Your task to perform on an android device: open the mobile data screen to see how much data has been used Image 0: 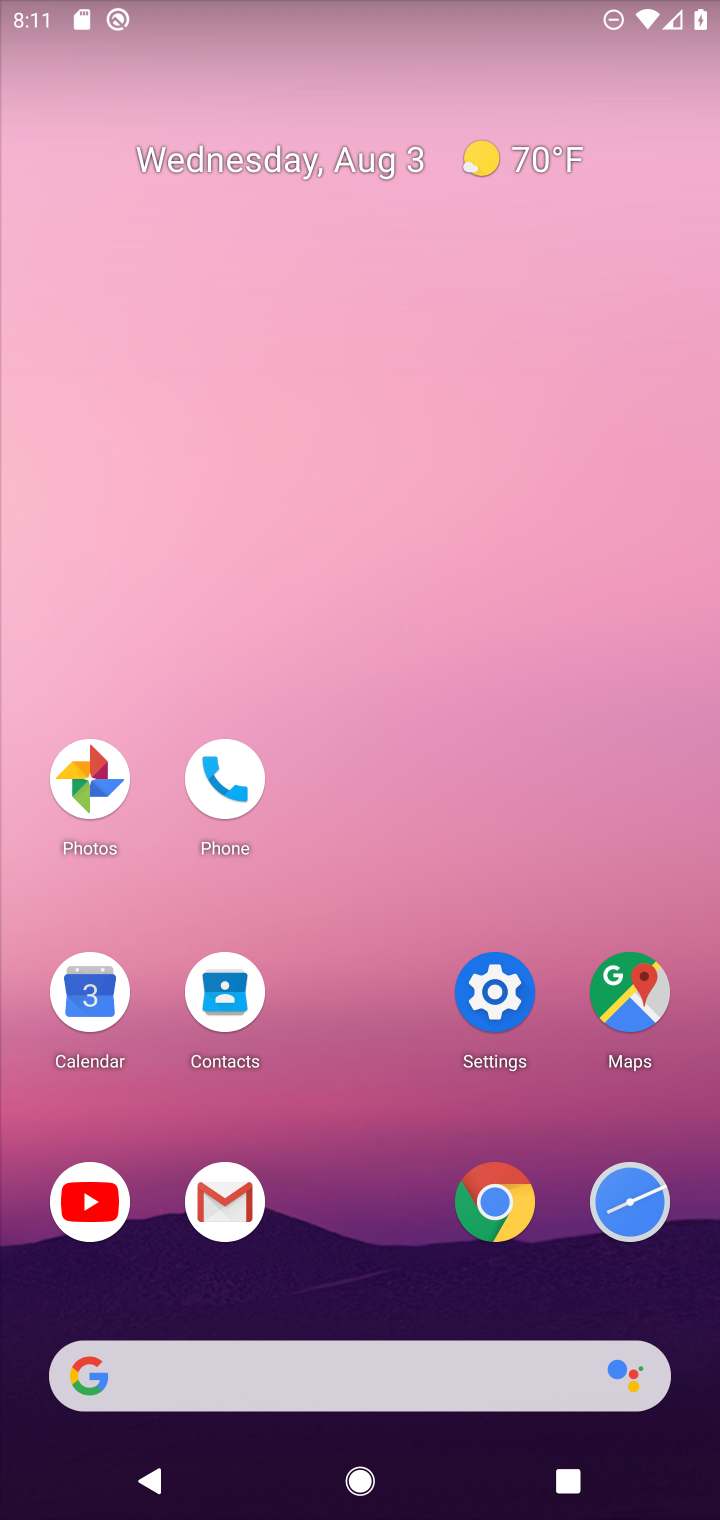
Step 0: press home button
Your task to perform on an android device: open the mobile data screen to see how much data has been used Image 1: 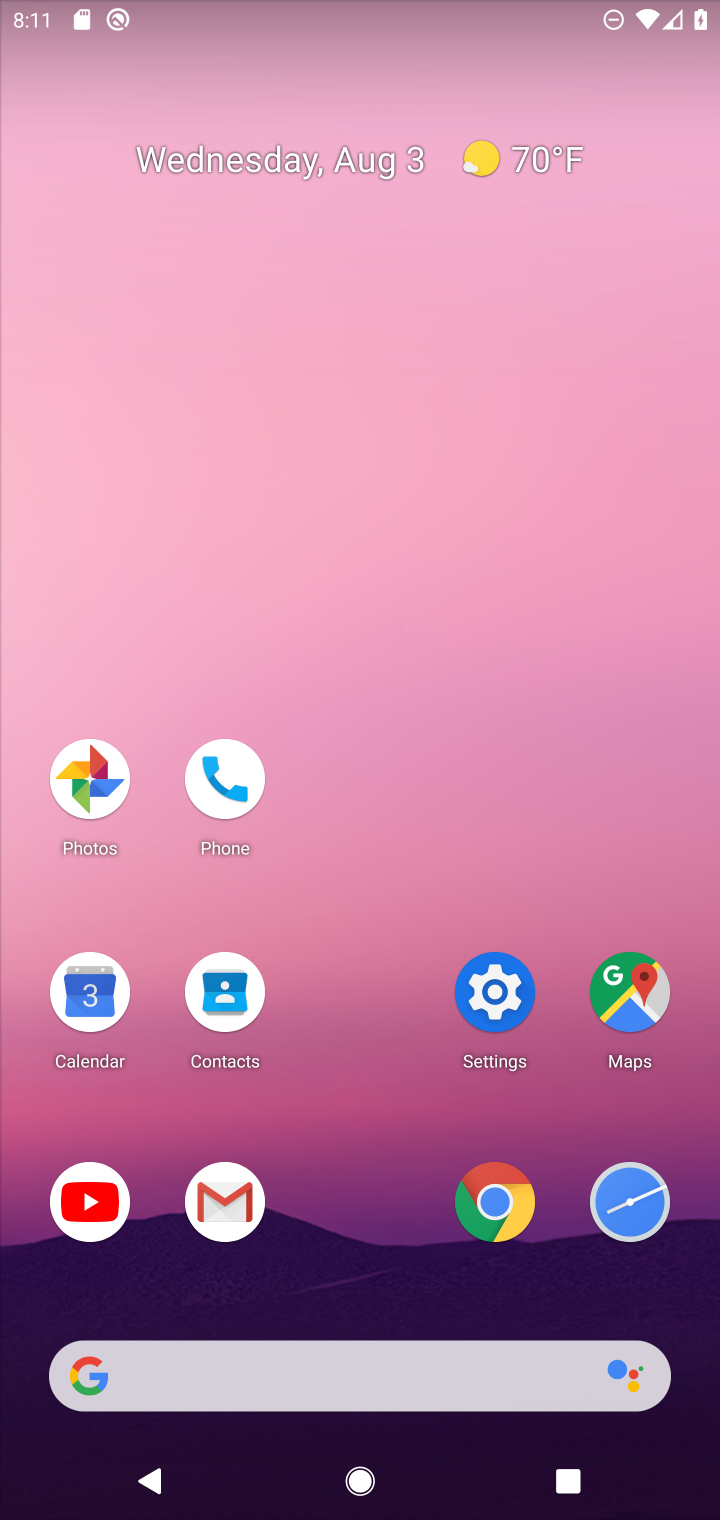
Step 1: click (502, 990)
Your task to perform on an android device: open the mobile data screen to see how much data has been used Image 2: 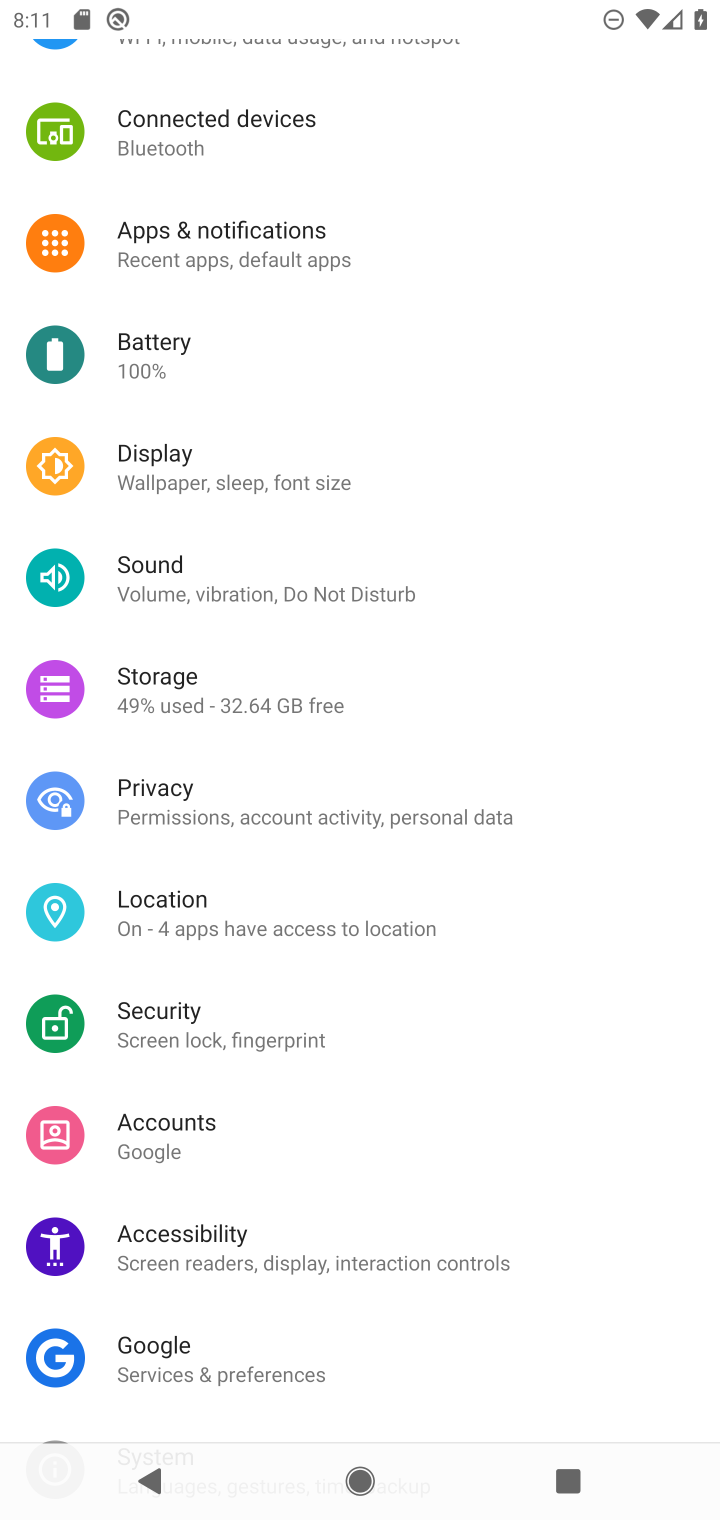
Step 2: drag from (421, 344) to (306, 910)
Your task to perform on an android device: open the mobile data screen to see how much data has been used Image 3: 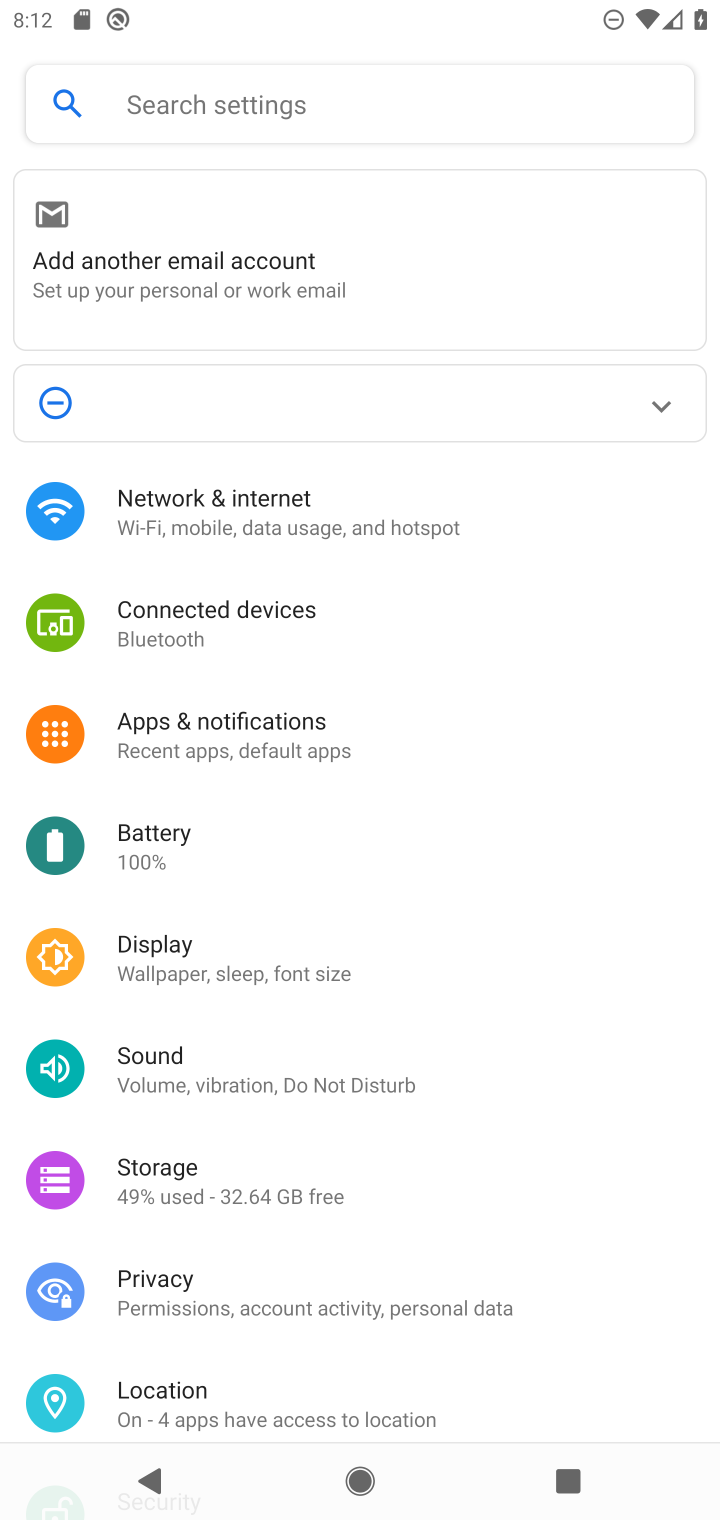
Step 3: click (263, 485)
Your task to perform on an android device: open the mobile data screen to see how much data has been used Image 4: 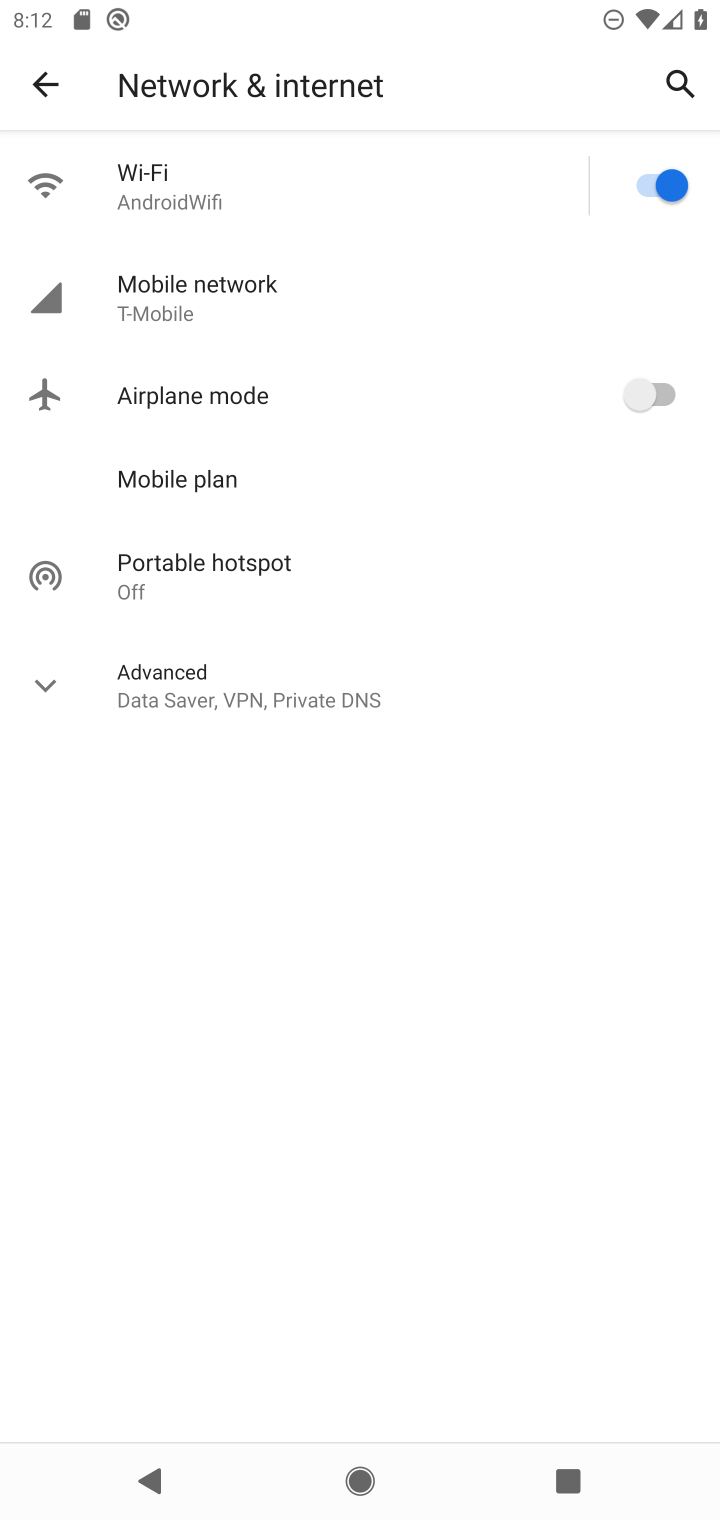
Step 4: click (235, 273)
Your task to perform on an android device: open the mobile data screen to see how much data has been used Image 5: 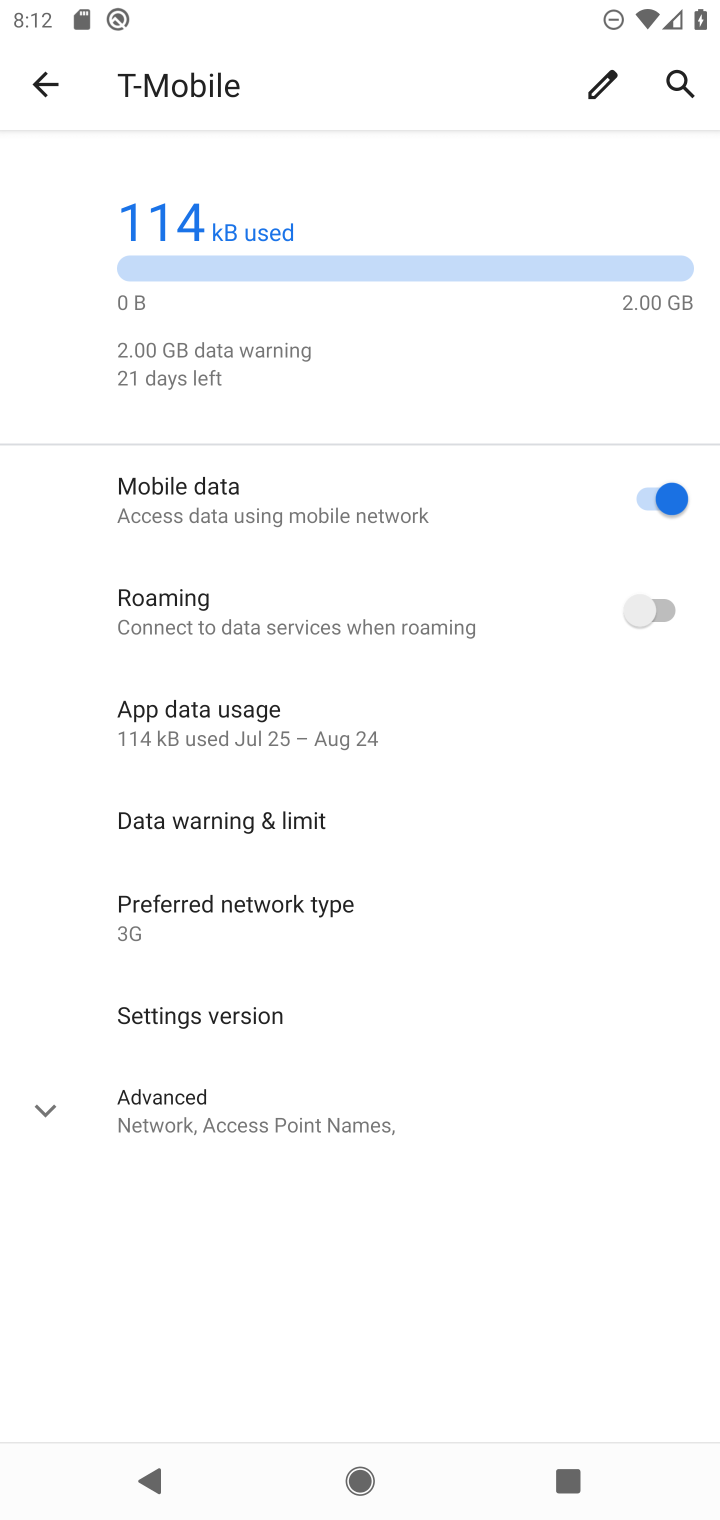
Step 5: task complete